Your task to perform on an android device: Go to location settings Image 0: 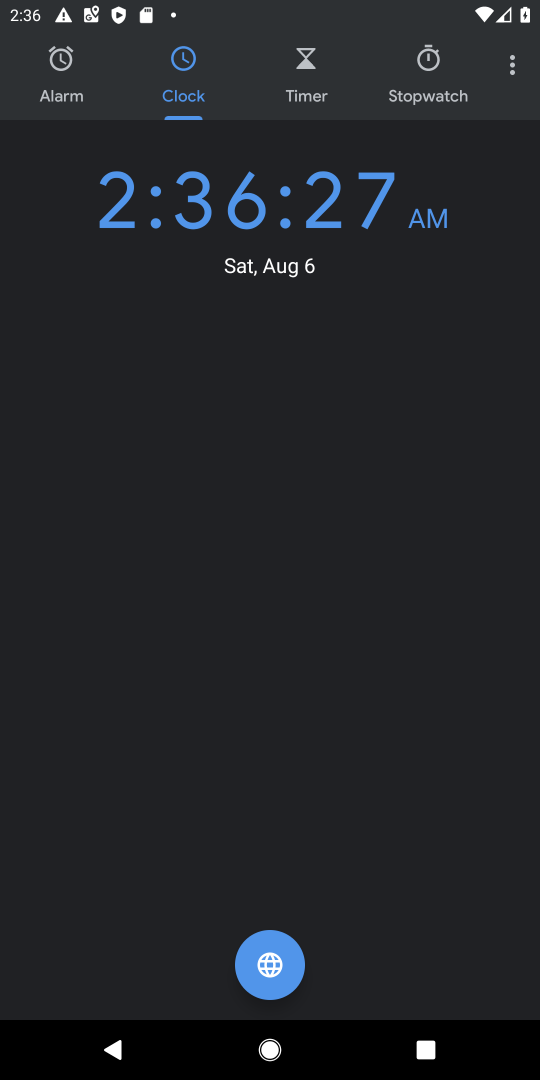
Step 0: press back button
Your task to perform on an android device: Go to location settings Image 1: 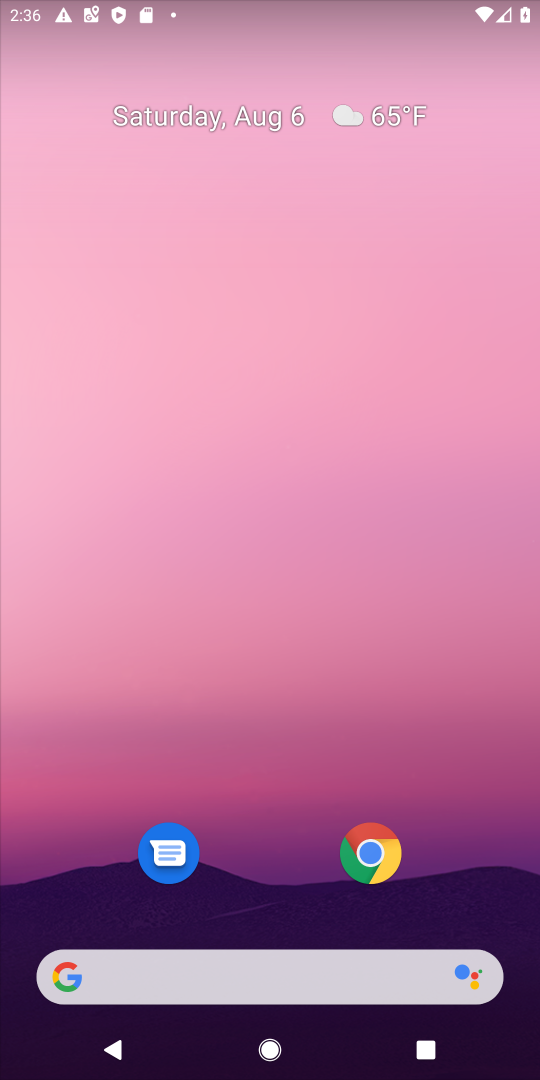
Step 1: drag from (296, 836) to (330, 8)
Your task to perform on an android device: Go to location settings Image 2: 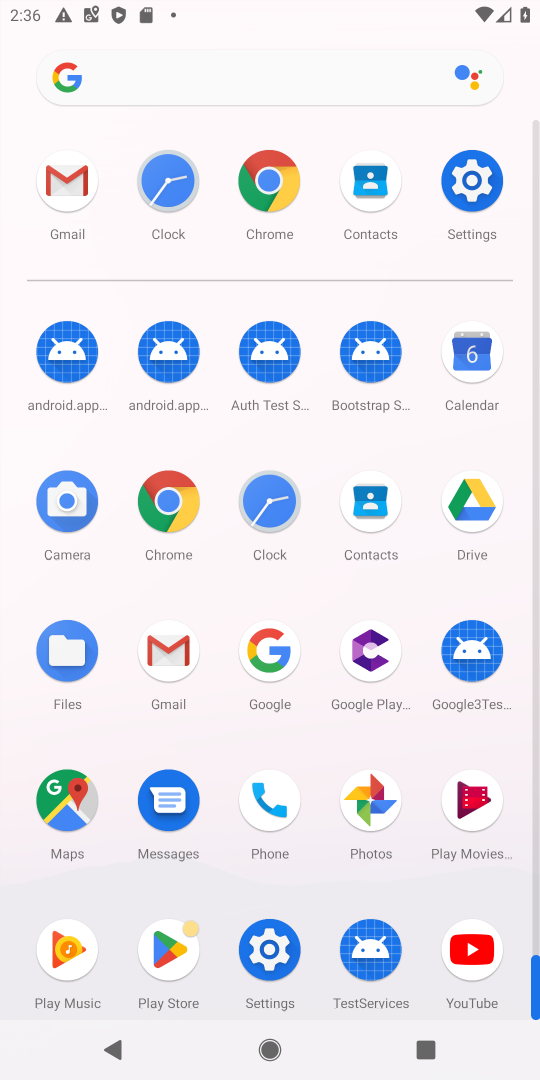
Step 2: click (470, 196)
Your task to perform on an android device: Go to location settings Image 3: 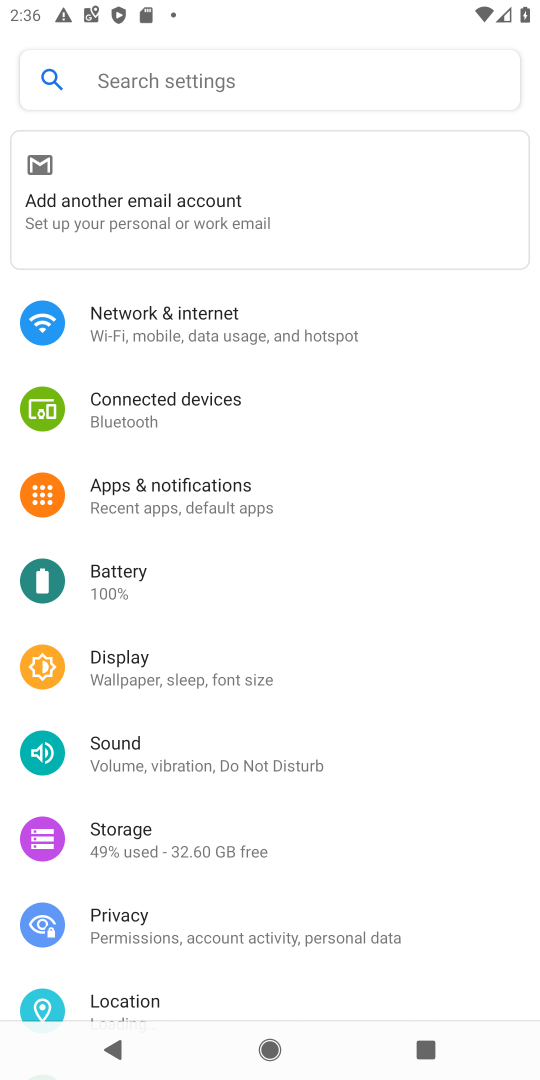
Step 3: click (125, 993)
Your task to perform on an android device: Go to location settings Image 4: 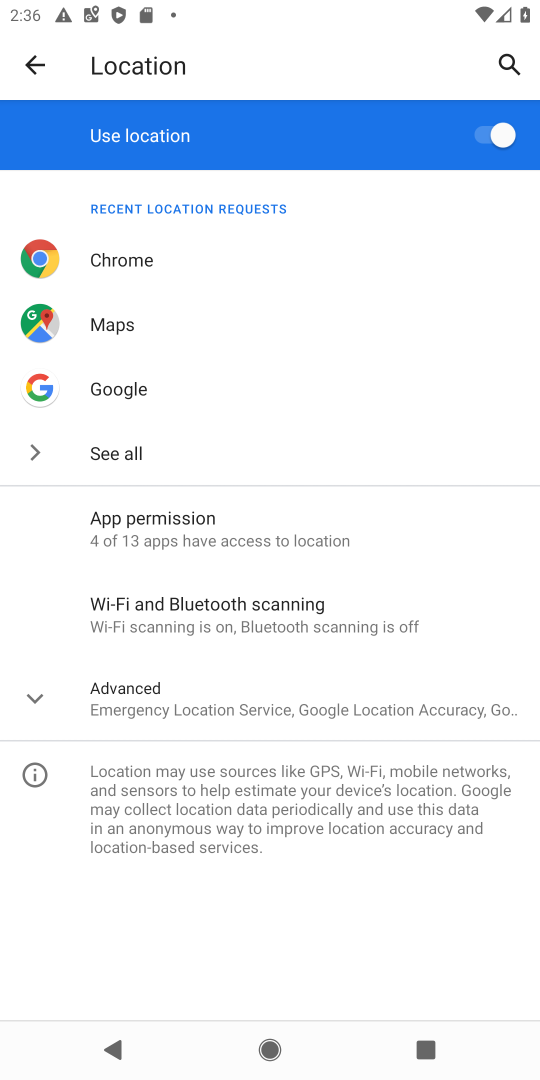
Step 4: task complete